Your task to perform on an android device: Go to Google Image 0: 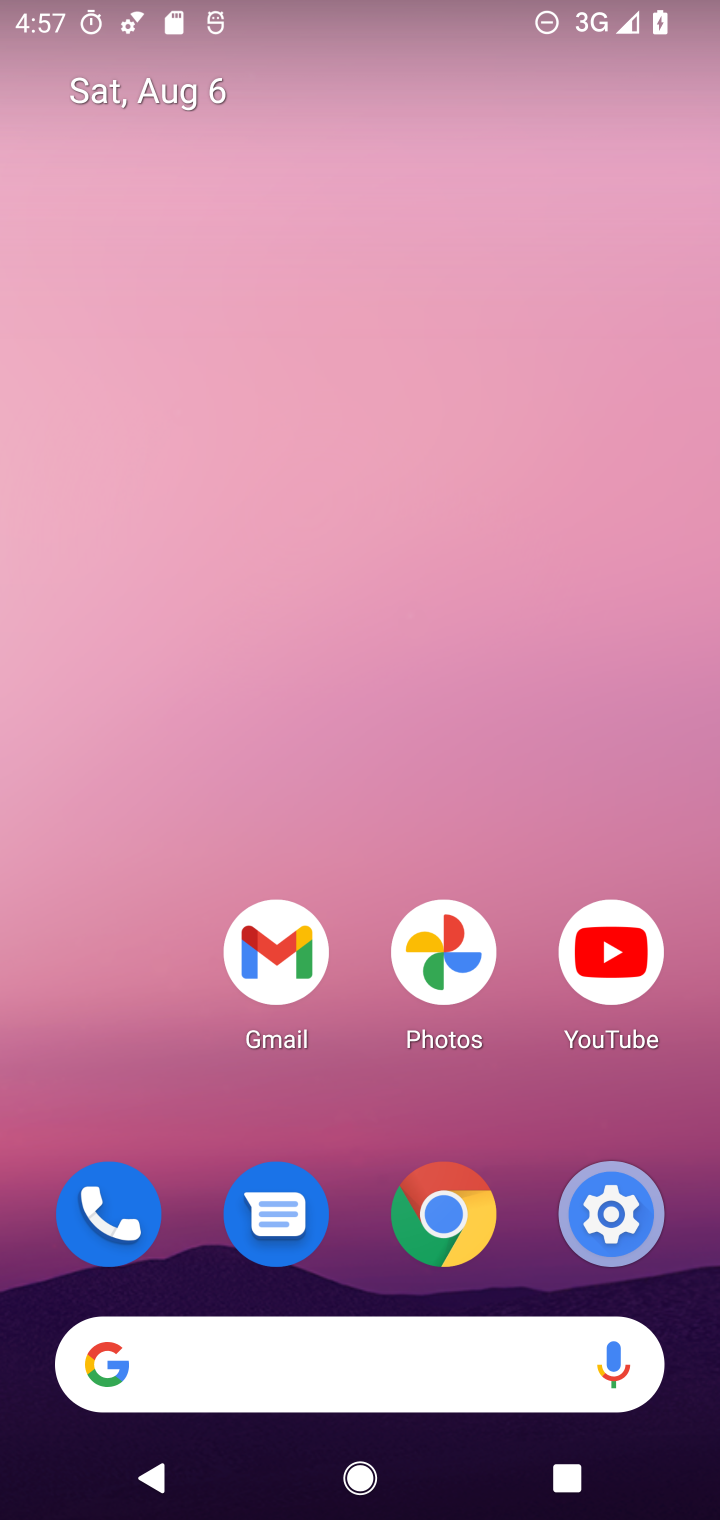
Step 0: click (420, 1366)
Your task to perform on an android device: Go to Google Image 1: 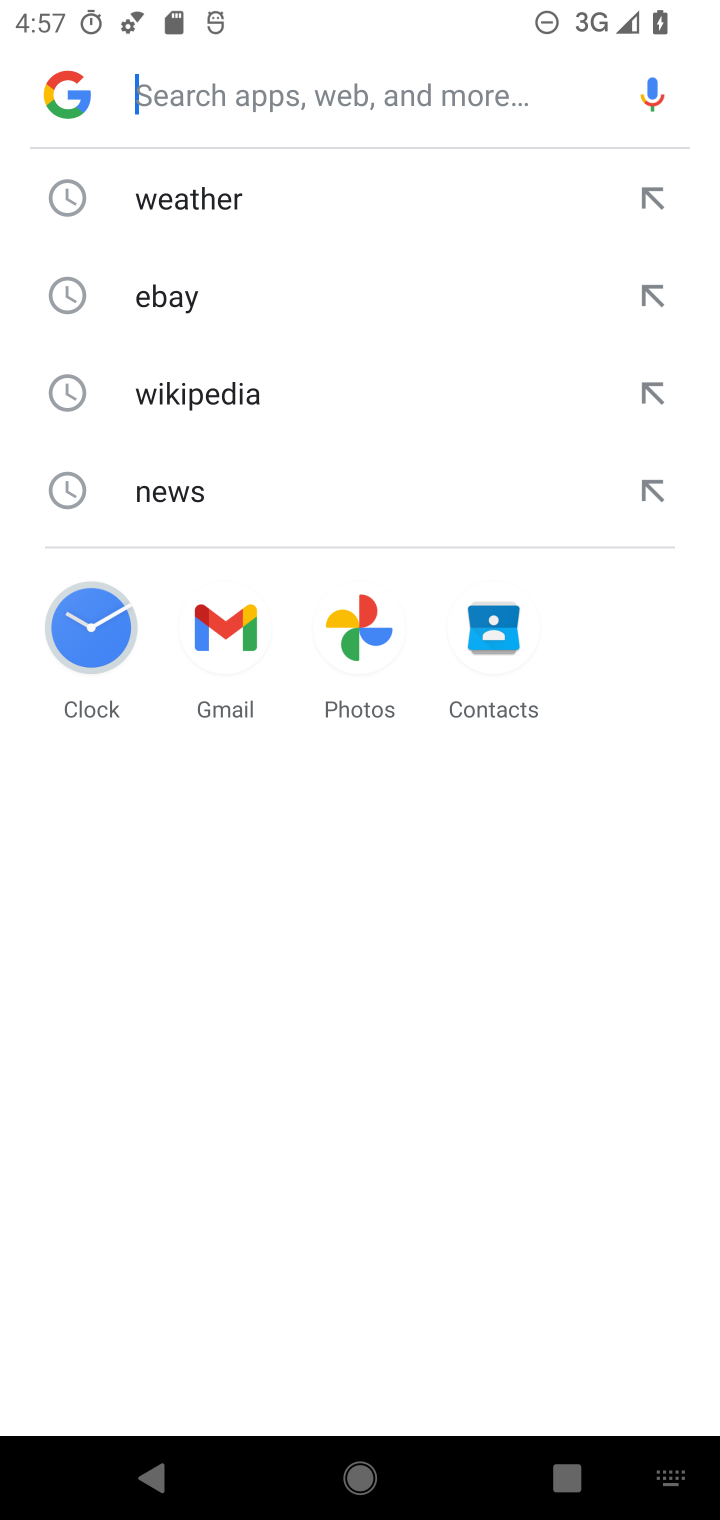
Step 1: click (420, 1366)
Your task to perform on an android device: Go to Google Image 2: 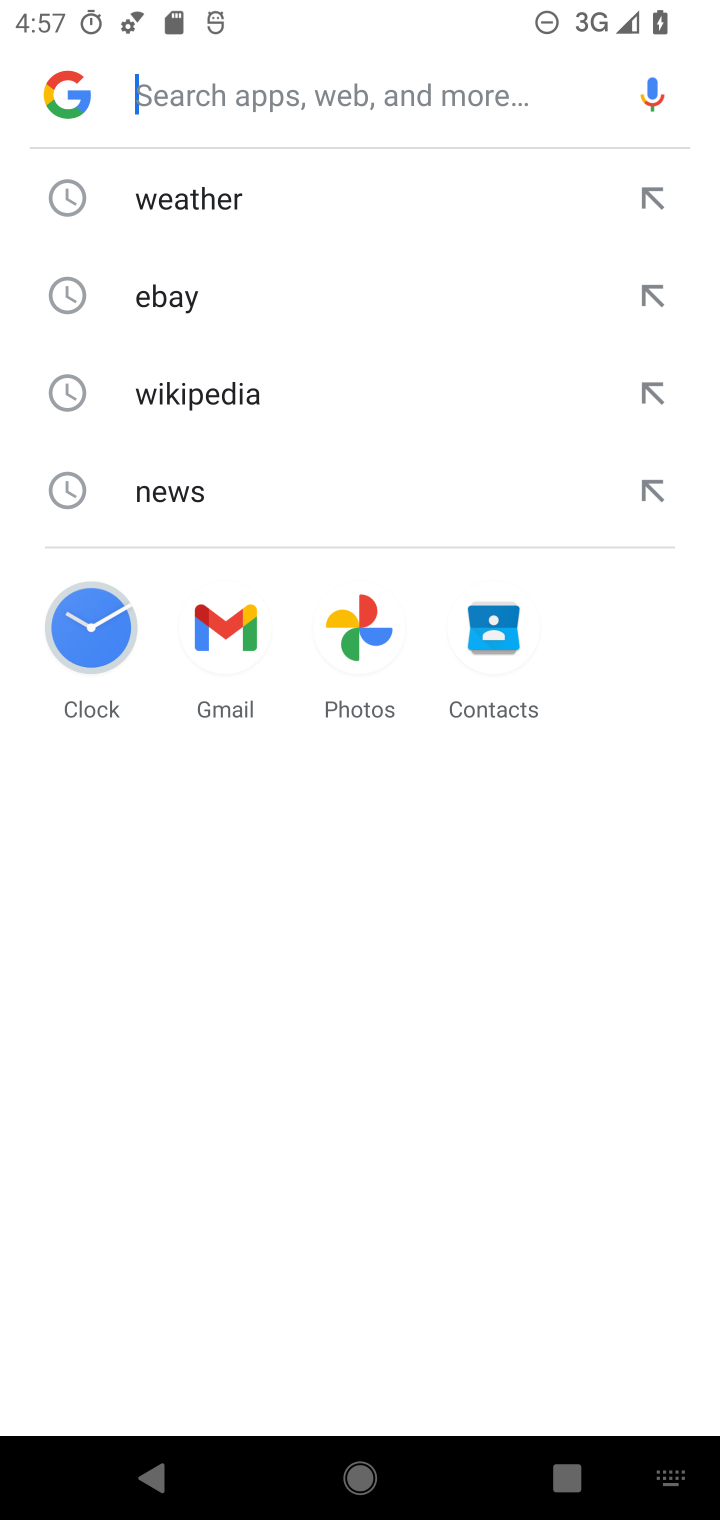
Step 2: task complete